Your task to perform on an android device: check storage Image 0: 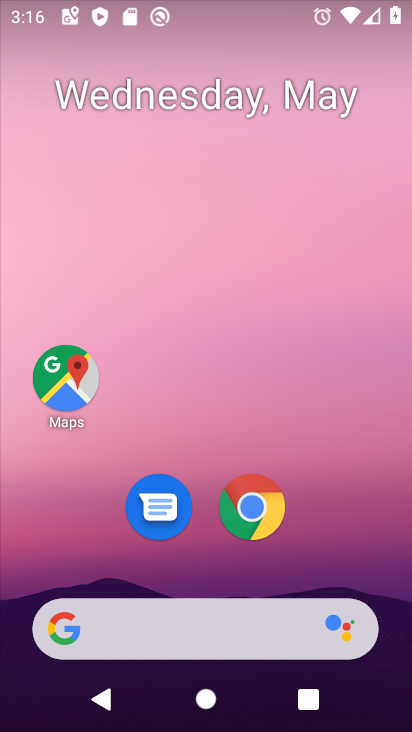
Step 0: drag from (155, 585) to (185, 56)
Your task to perform on an android device: check storage Image 1: 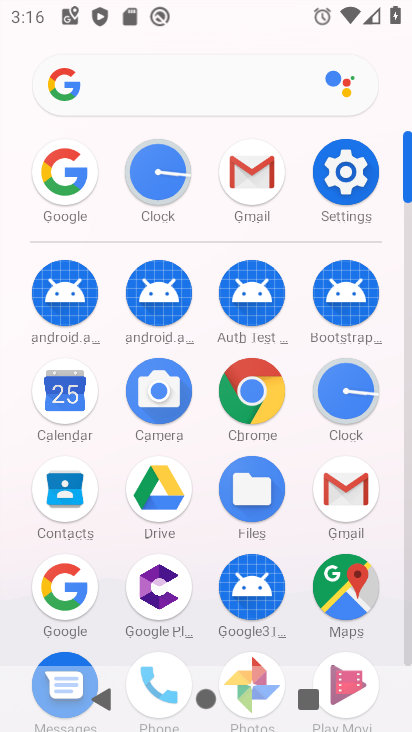
Step 1: click (348, 174)
Your task to perform on an android device: check storage Image 2: 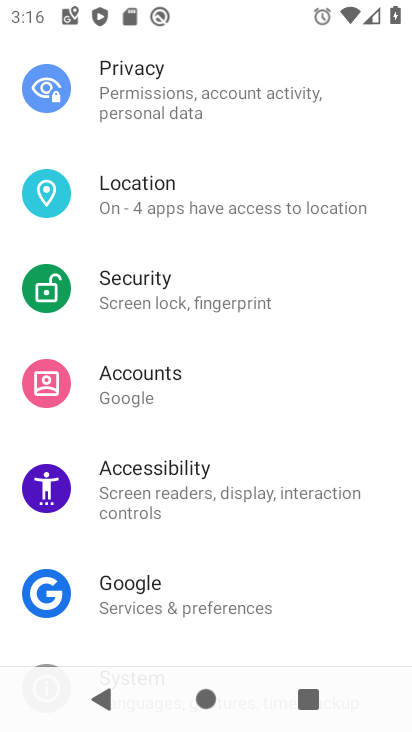
Step 2: drag from (192, 201) to (211, 522)
Your task to perform on an android device: check storage Image 3: 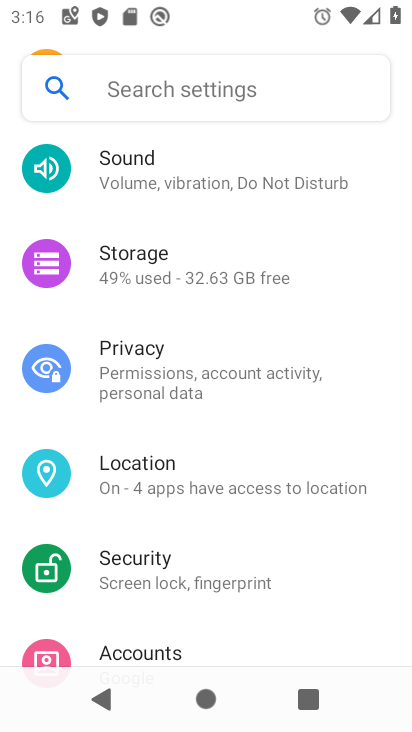
Step 3: click (191, 276)
Your task to perform on an android device: check storage Image 4: 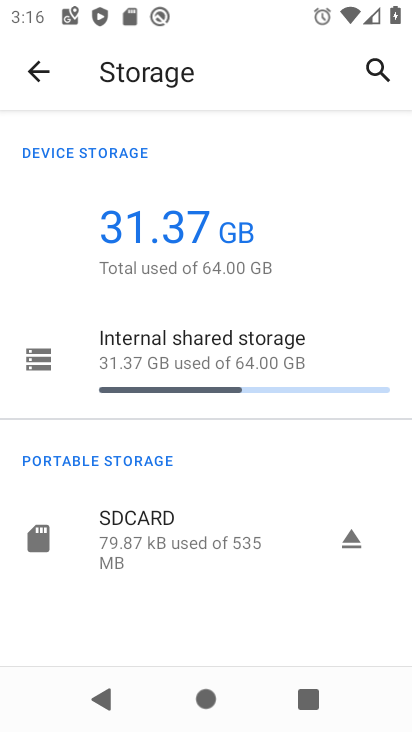
Step 4: task complete